Your task to perform on an android device: turn off wifi Image 0: 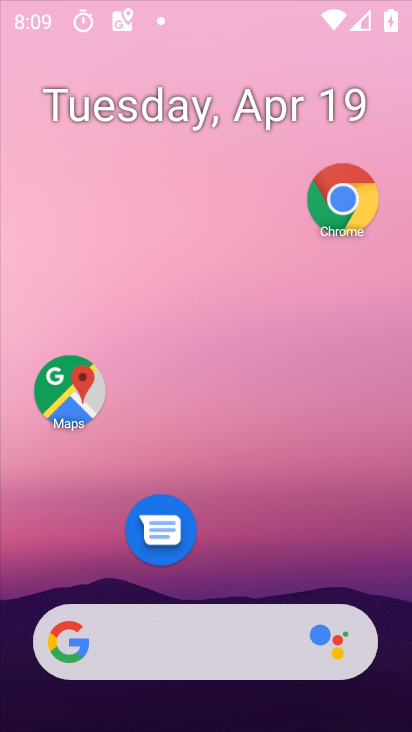
Step 0: click (403, 49)
Your task to perform on an android device: turn off wifi Image 1: 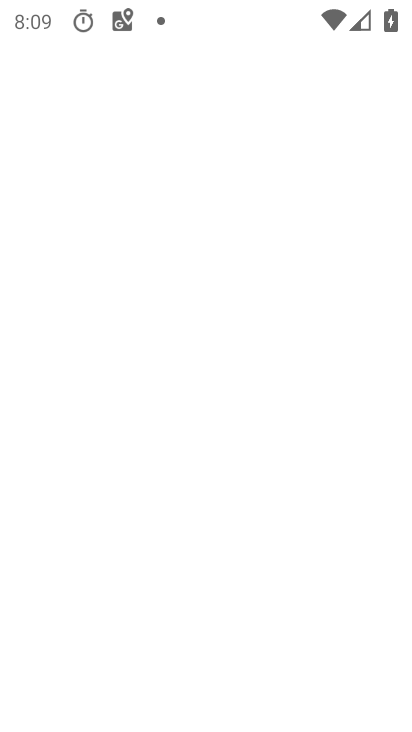
Step 1: drag from (207, 579) to (267, 139)
Your task to perform on an android device: turn off wifi Image 2: 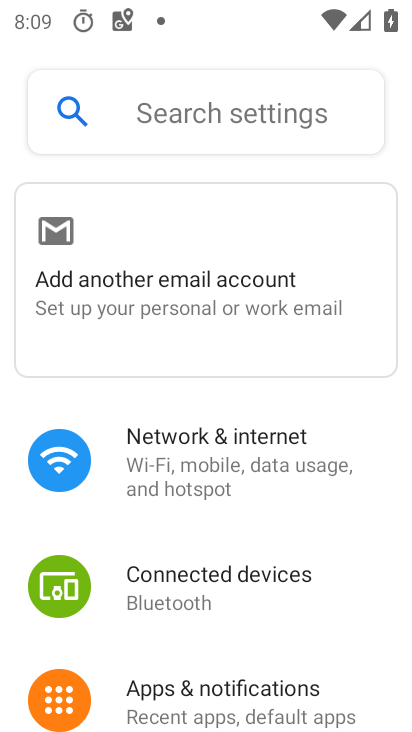
Step 2: click (201, 459)
Your task to perform on an android device: turn off wifi Image 3: 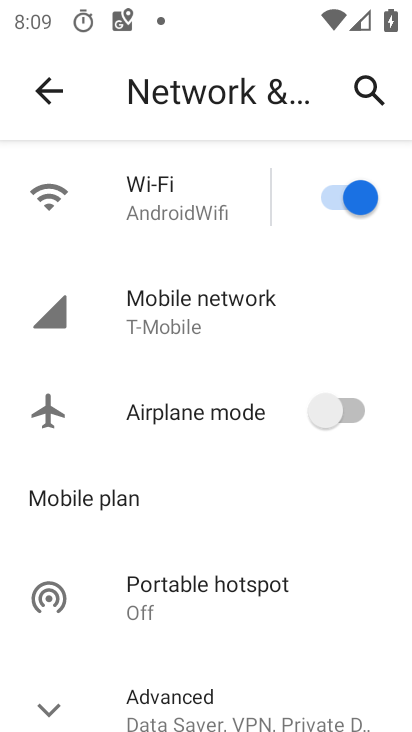
Step 3: click (366, 191)
Your task to perform on an android device: turn off wifi Image 4: 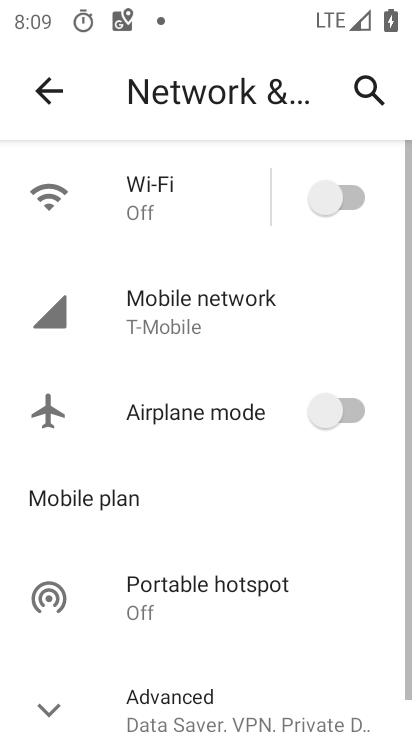
Step 4: task complete